Your task to perform on an android device: turn off smart reply in the gmail app Image 0: 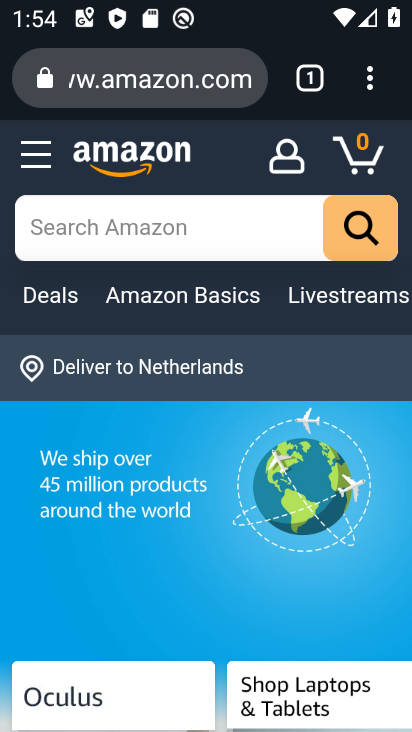
Step 0: press home button
Your task to perform on an android device: turn off smart reply in the gmail app Image 1: 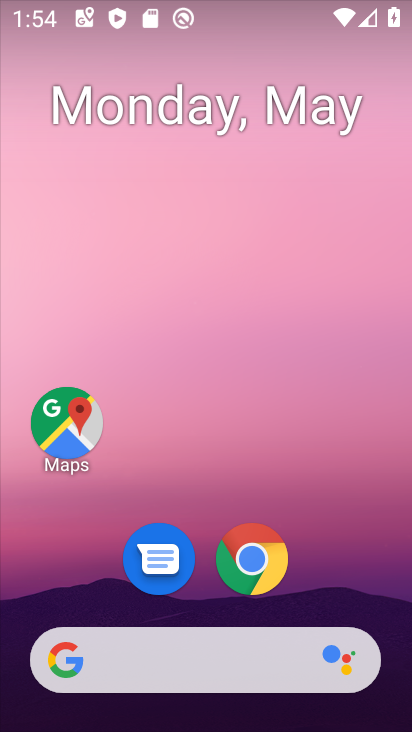
Step 1: drag from (162, 707) to (144, 171)
Your task to perform on an android device: turn off smart reply in the gmail app Image 2: 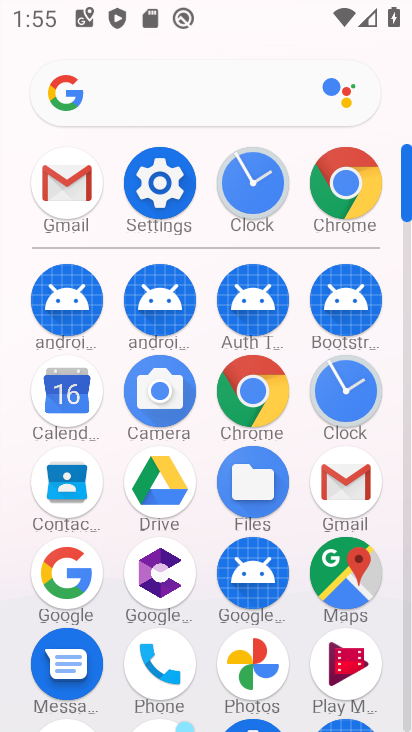
Step 2: click (60, 160)
Your task to perform on an android device: turn off smart reply in the gmail app Image 3: 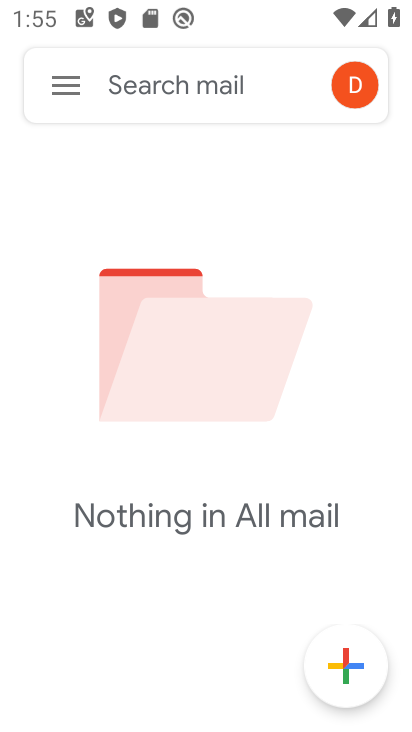
Step 3: click (54, 79)
Your task to perform on an android device: turn off smart reply in the gmail app Image 4: 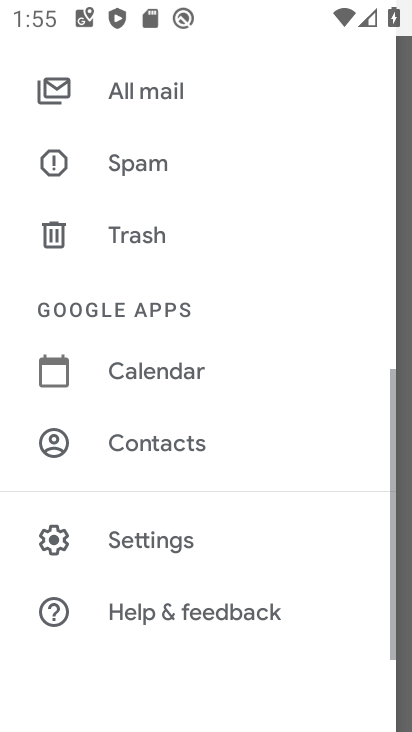
Step 4: click (194, 535)
Your task to perform on an android device: turn off smart reply in the gmail app Image 5: 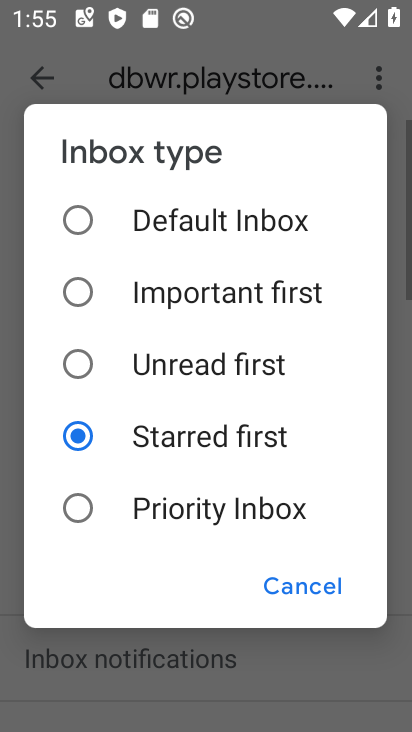
Step 5: click (276, 588)
Your task to perform on an android device: turn off smart reply in the gmail app Image 6: 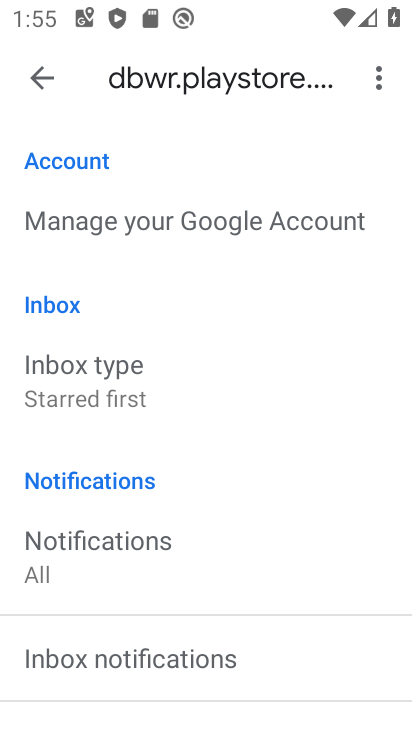
Step 6: task complete